Your task to perform on an android device: Show me the alarms in the clock app Image 0: 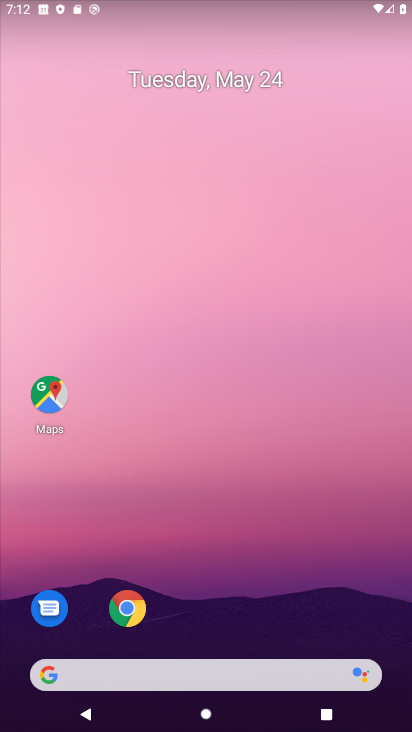
Step 0: drag from (267, 607) to (240, 105)
Your task to perform on an android device: Show me the alarms in the clock app Image 1: 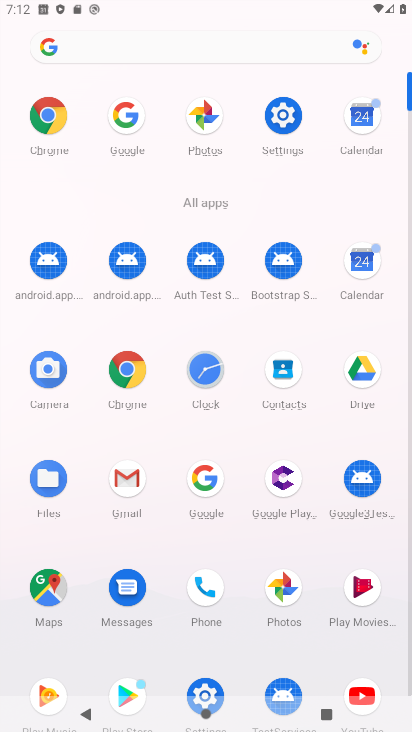
Step 1: click (206, 367)
Your task to perform on an android device: Show me the alarms in the clock app Image 2: 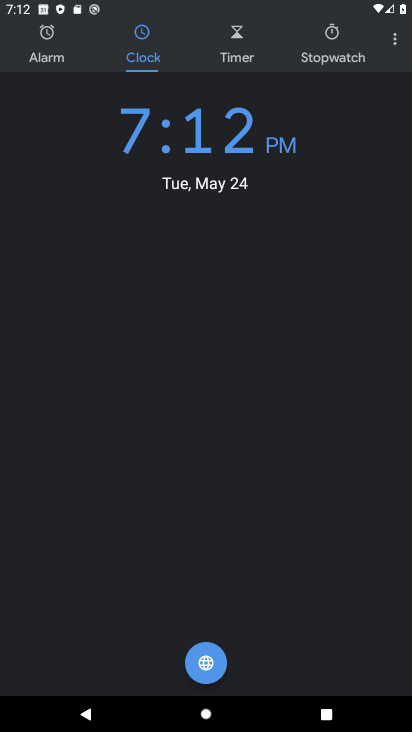
Step 2: click (49, 35)
Your task to perform on an android device: Show me the alarms in the clock app Image 3: 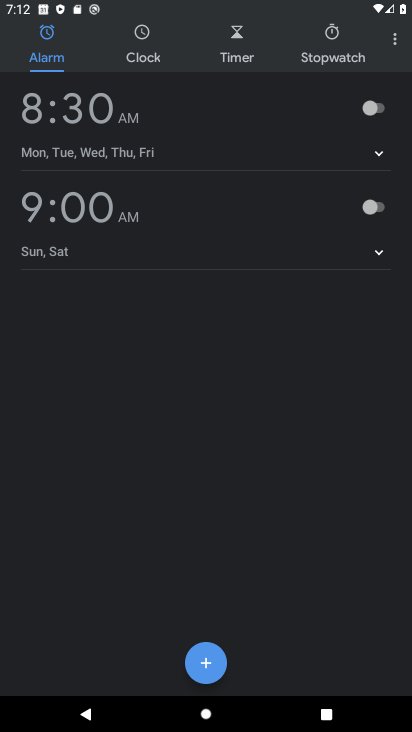
Step 3: task complete